Your task to perform on an android device: turn on sleep mode Image 0: 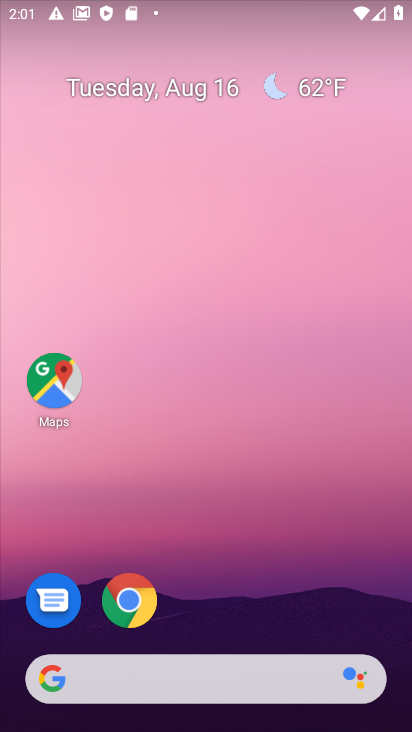
Step 0: drag from (208, 680) to (170, 177)
Your task to perform on an android device: turn on sleep mode Image 1: 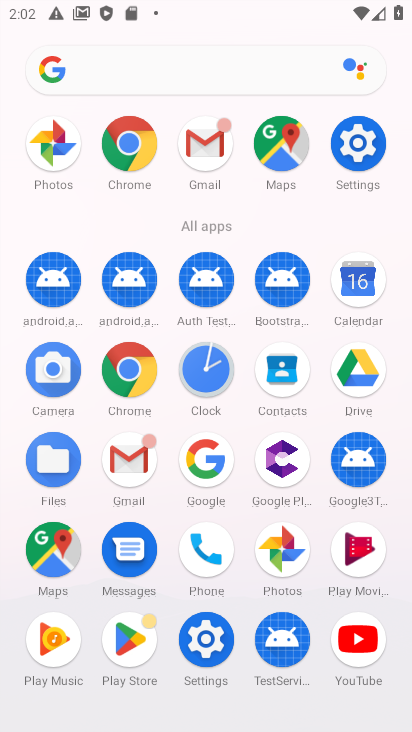
Step 1: click (356, 141)
Your task to perform on an android device: turn on sleep mode Image 2: 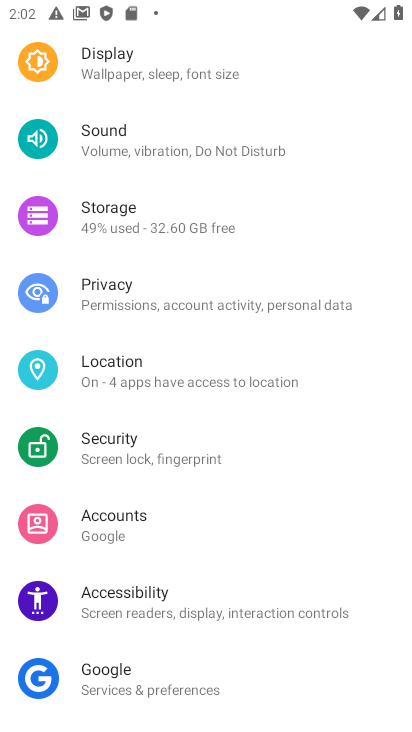
Step 2: click (112, 87)
Your task to perform on an android device: turn on sleep mode Image 3: 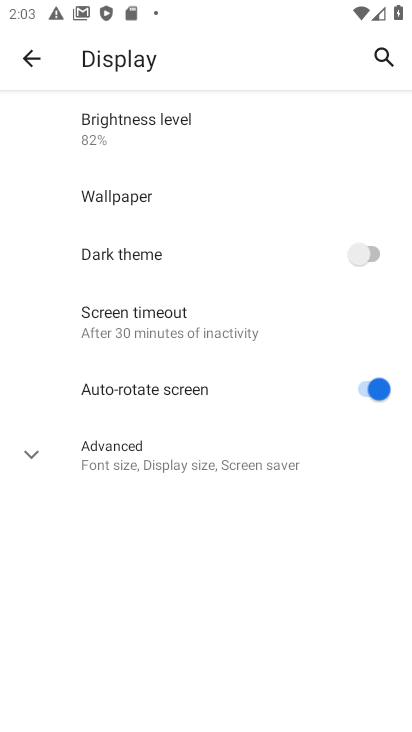
Step 3: task complete